Your task to perform on an android device: Search for hotels in San Diego Image 0: 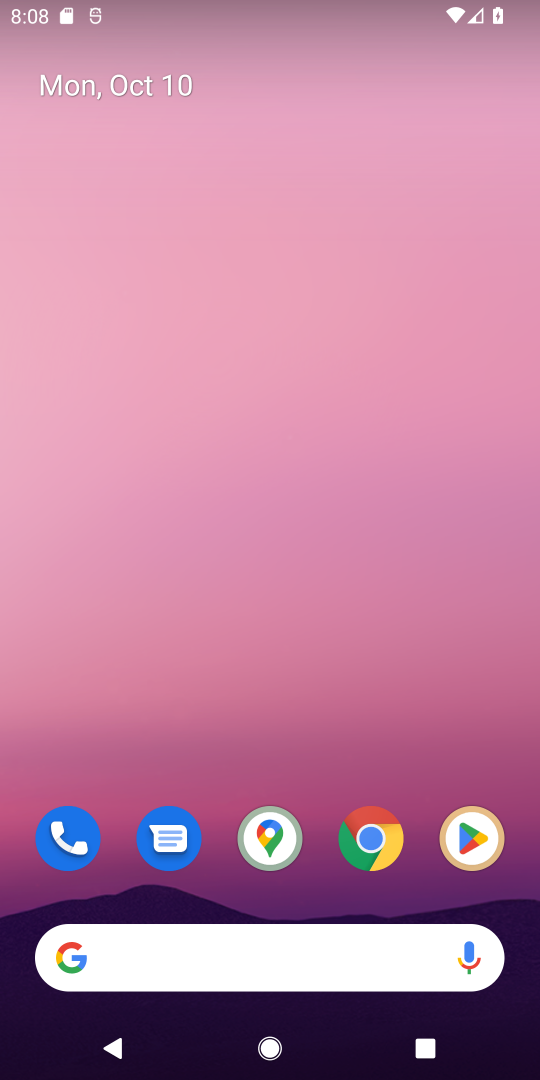
Step 0: click (371, 833)
Your task to perform on an android device: Search for hotels in San Diego Image 1: 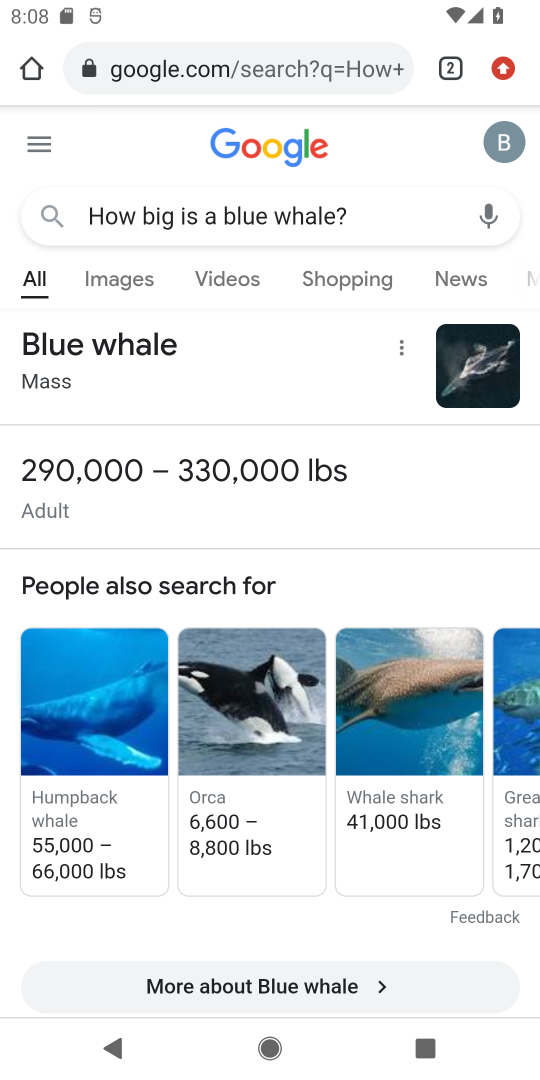
Step 1: click (245, 50)
Your task to perform on an android device: Search for hotels in San Diego Image 2: 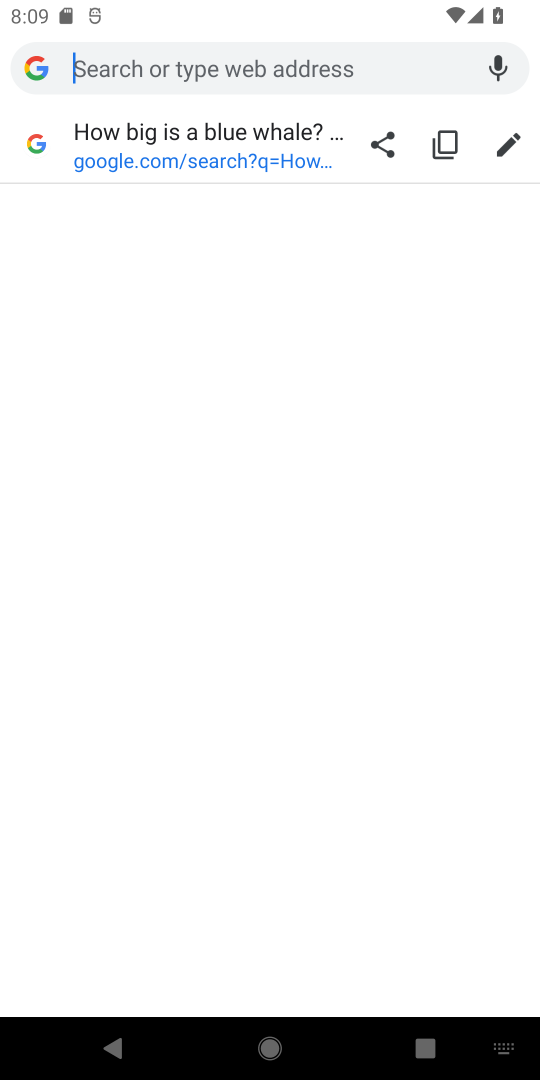
Step 2: type " hotels in San Diego"
Your task to perform on an android device: Search for hotels in San Diego Image 3: 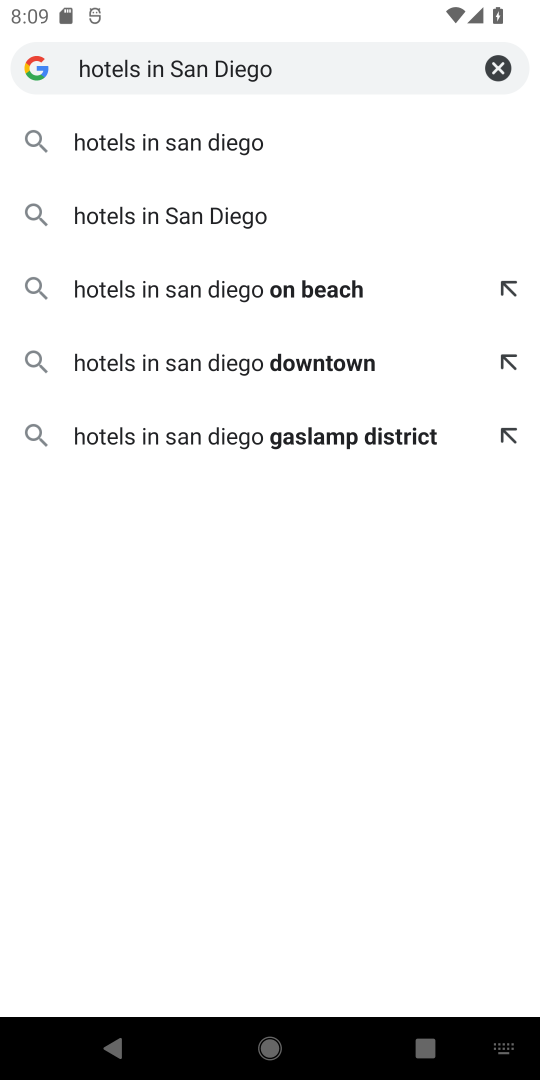
Step 3: click (135, 142)
Your task to perform on an android device: Search for hotels in San Diego Image 4: 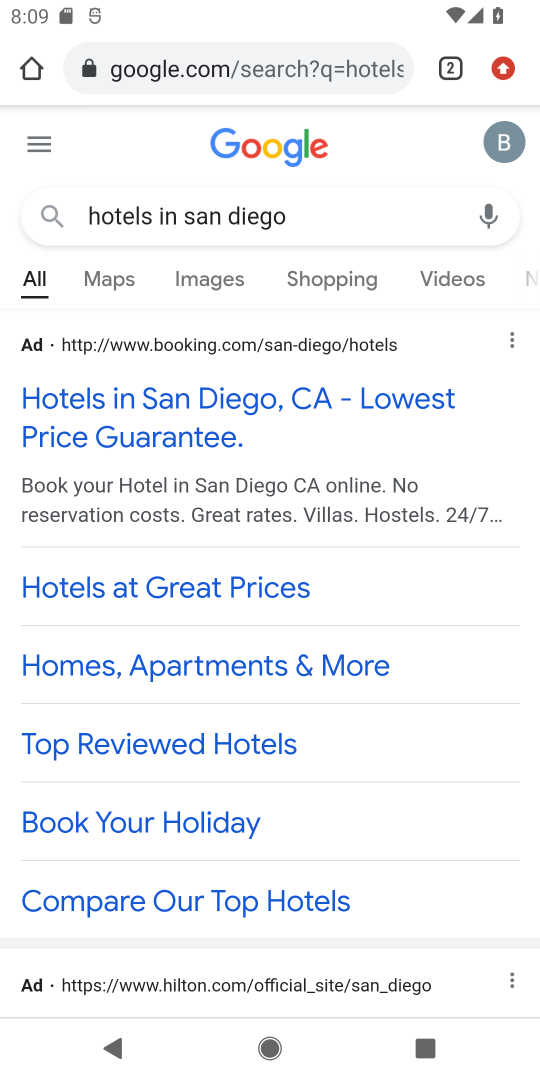
Step 4: click (139, 423)
Your task to perform on an android device: Search for hotels in San Diego Image 5: 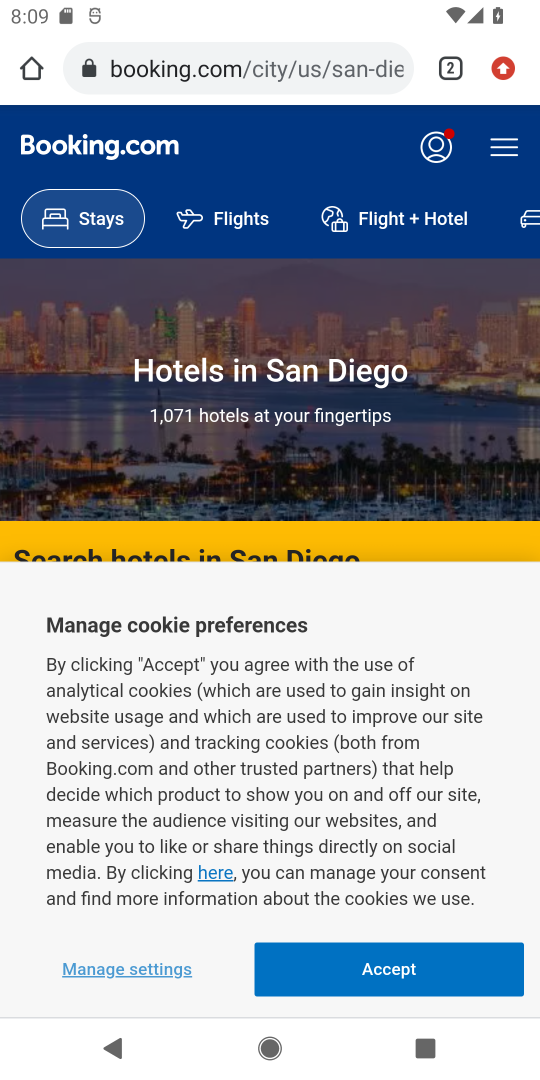
Step 5: click (396, 964)
Your task to perform on an android device: Search for hotels in San Diego Image 6: 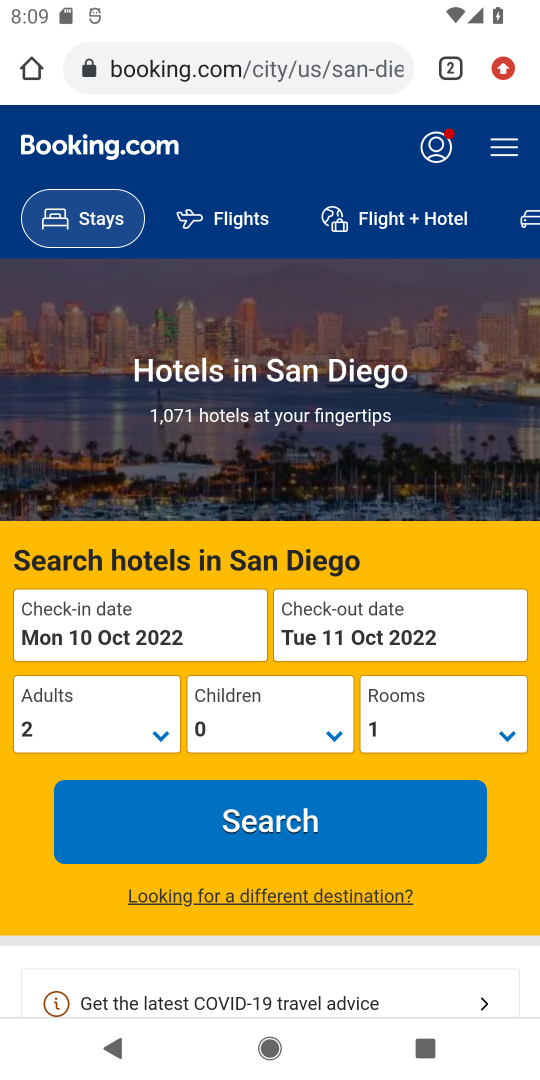
Step 6: click (247, 824)
Your task to perform on an android device: Search for hotels in San Diego Image 7: 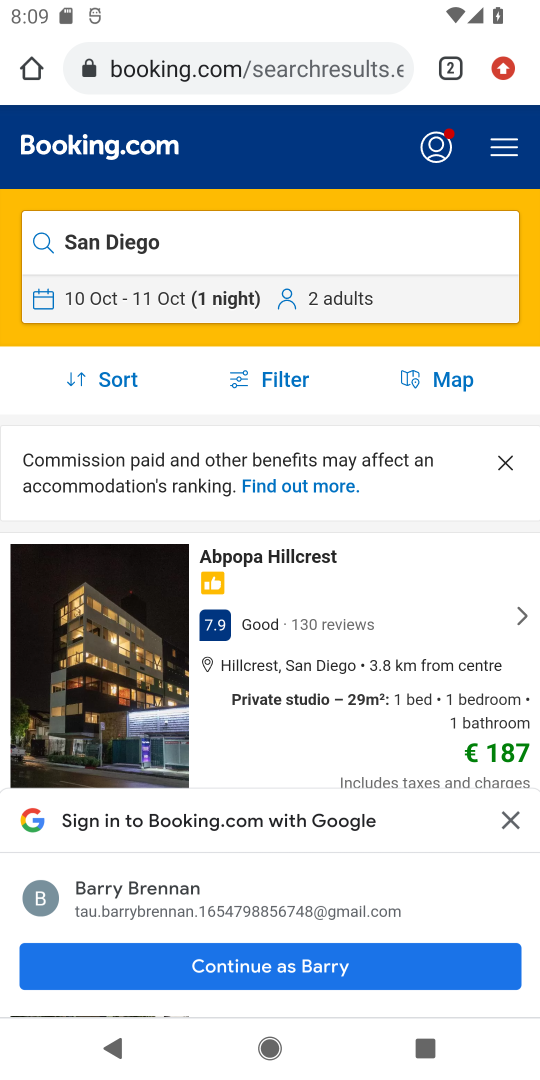
Step 7: click (505, 812)
Your task to perform on an android device: Search for hotels in San Diego Image 8: 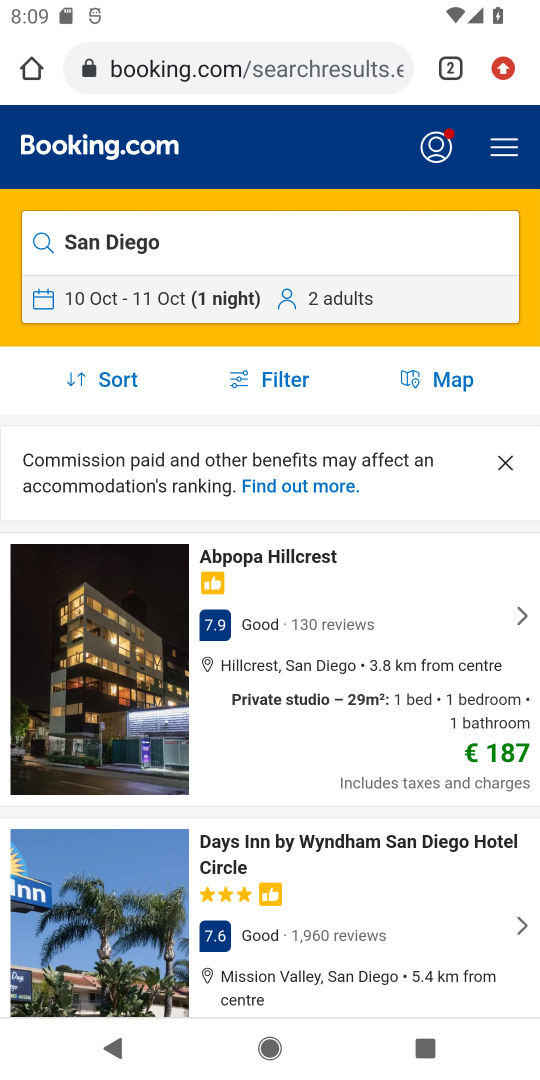
Step 8: task complete